Your task to perform on an android device: Open Google Maps and go to "Timeline" Image 0: 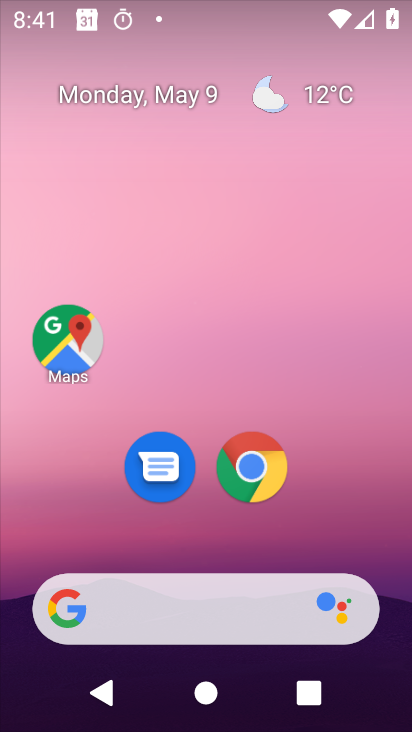
Step 0: click (62, 349)
Your task to perform on an android device: Open Google Maps and go to "Timeline" Image 1: 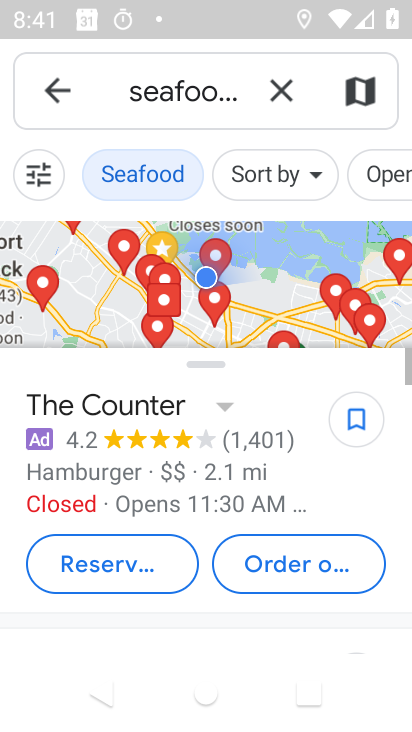
Step 1: click (277, 95)
Your task to perform on an android device: Open Google Maps and go to "Timeline" Image 2: 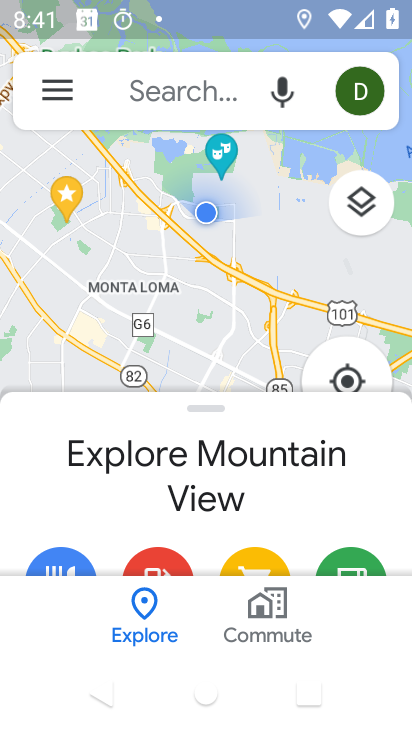
Step 2: click (64, 97)
Your task to perform on an android device: Open Google Maps and go to "Timeline" Image 3: 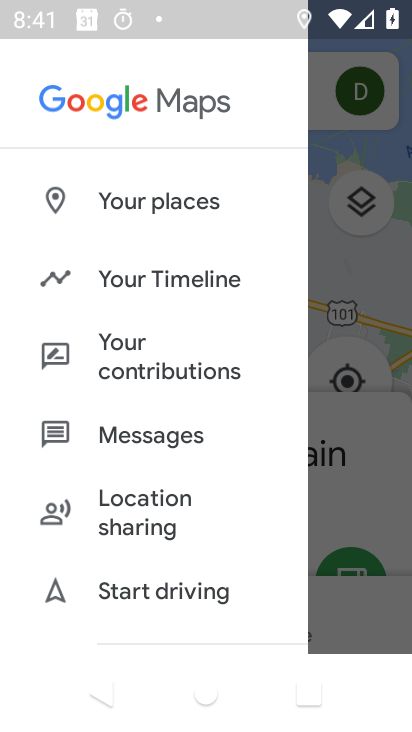
Step 3: click (121, 276)
Your task to perform on an android device: Open Google Maps and go to "Timeline" Image 4: 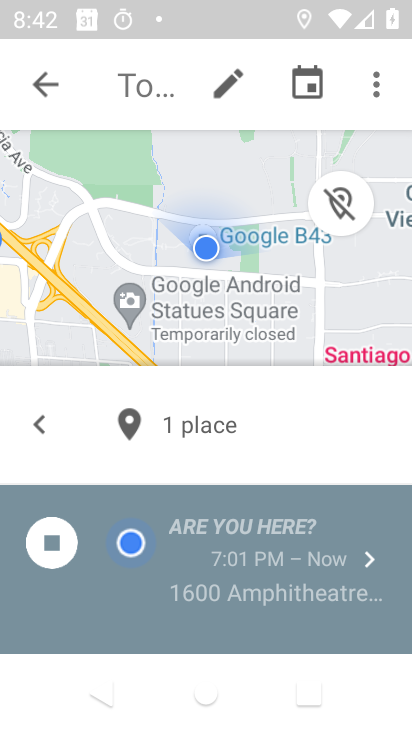
Step 4: task complete